Your task to perform on an android device: change the clock display to show seconds Image 0: 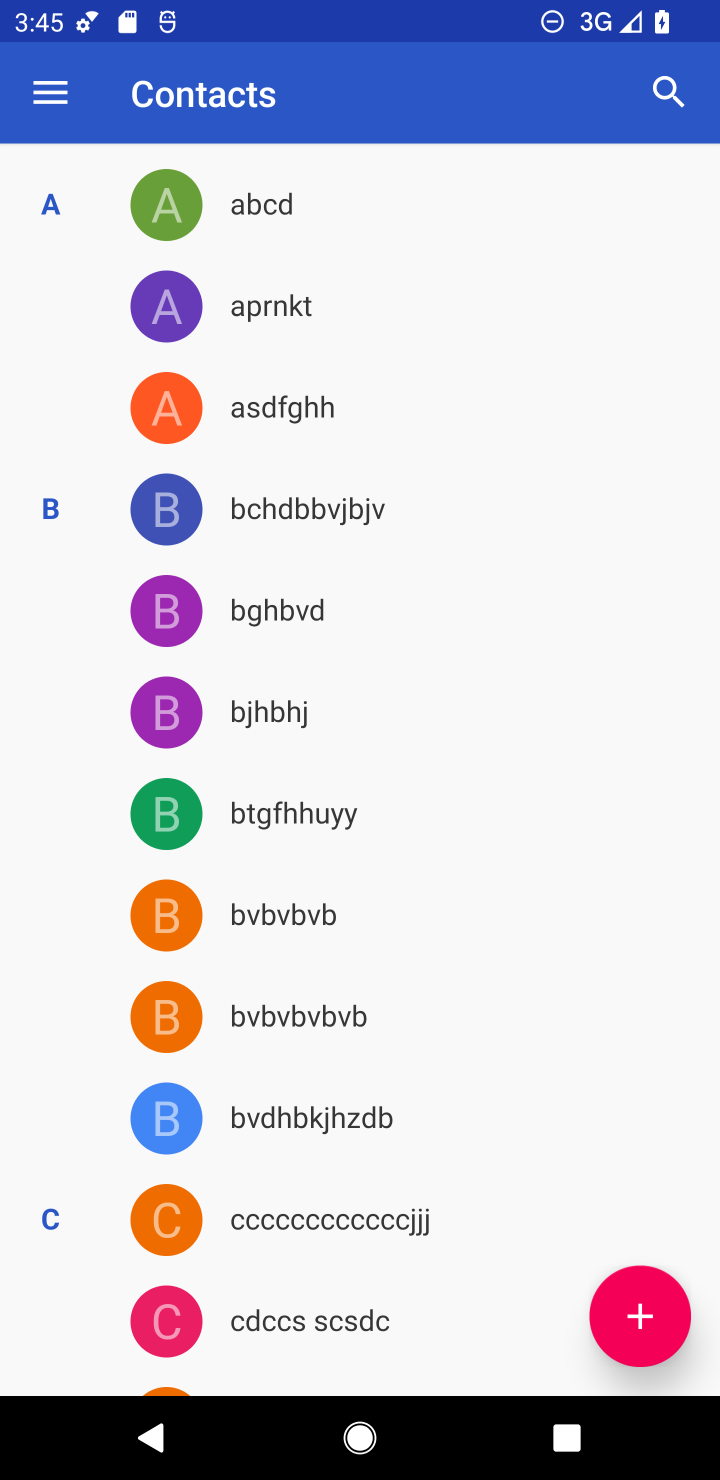
Step 0: press home button
Your task to perform on an android device: change the clock display to show seconds Image 1: 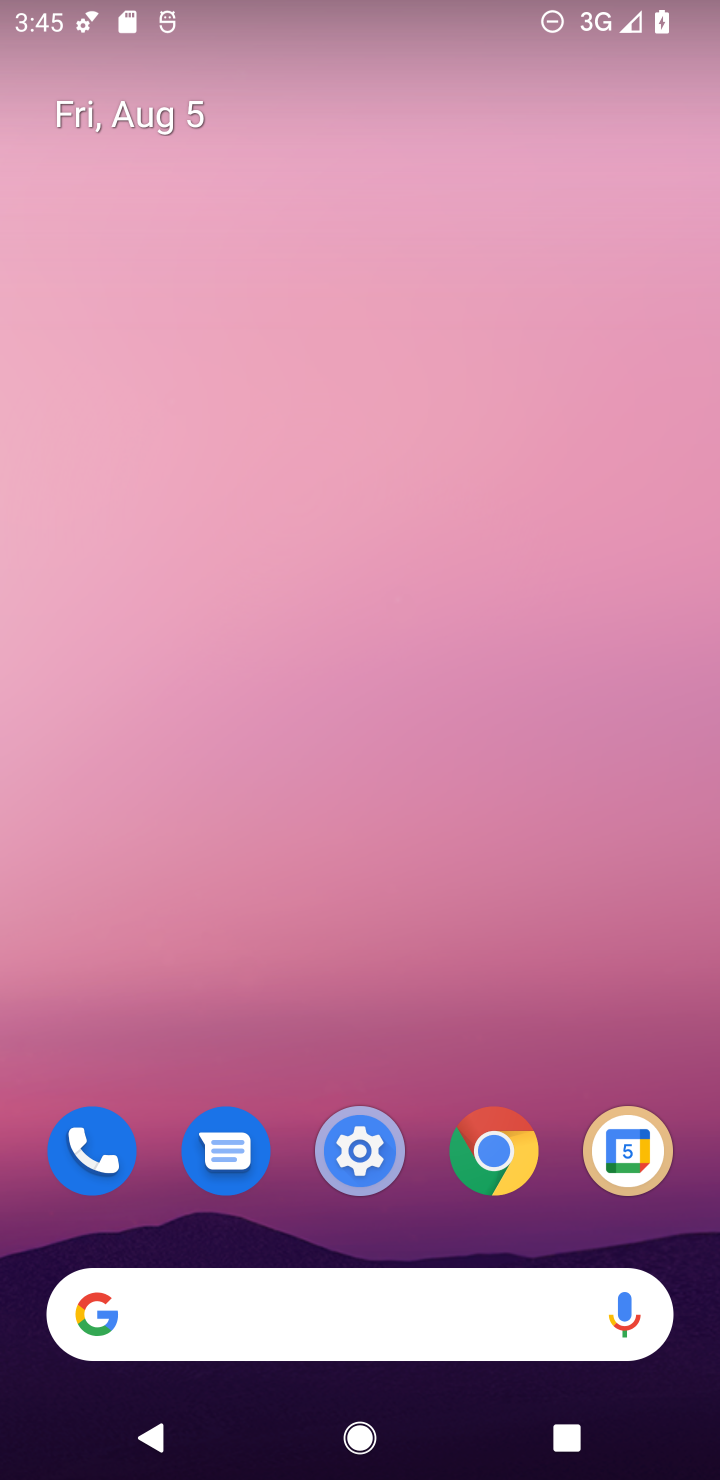
Step 1: drag from (243, 939) to (138, 50)
Your task to perform on an android device: change the clock display to show seconds Image 2: 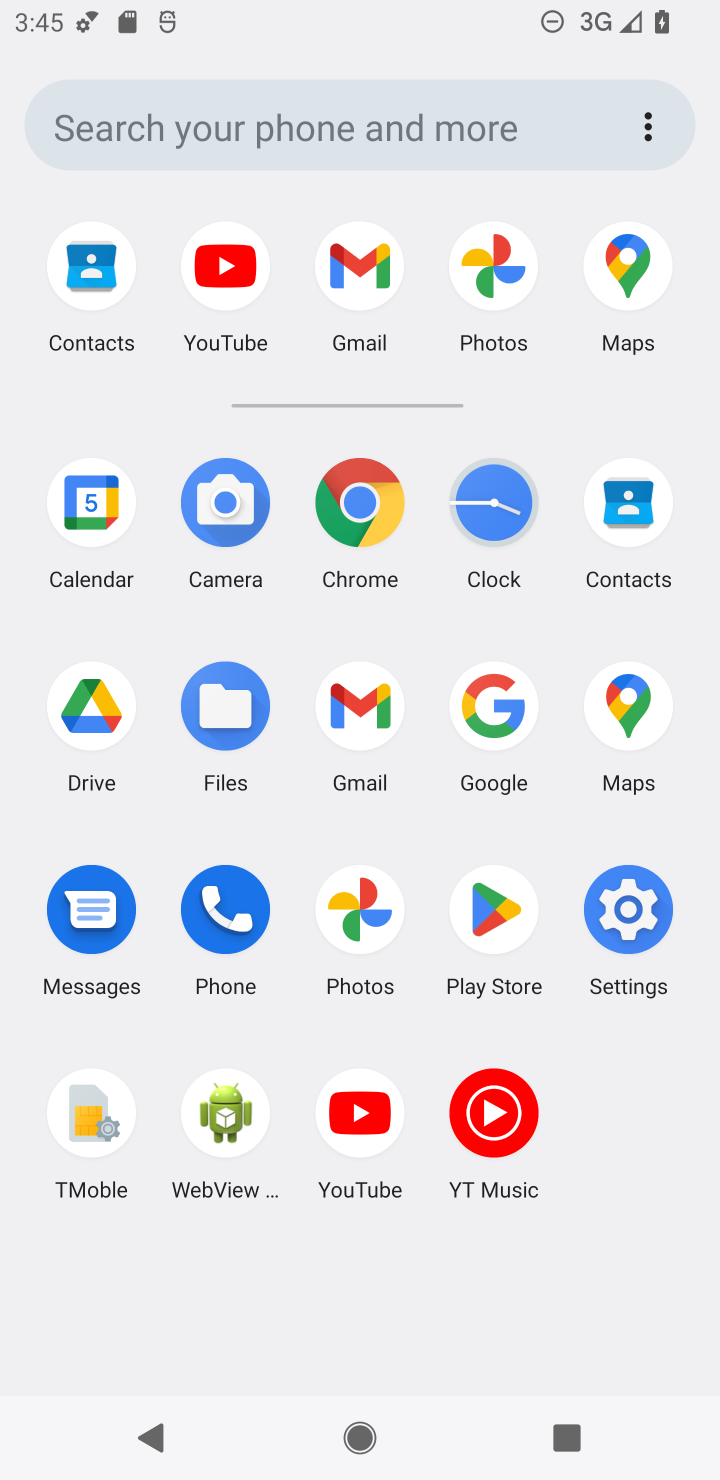
Step 2: click (508, 517)
Your task to perform on an android device: change the clock display to show seconds Image 3: 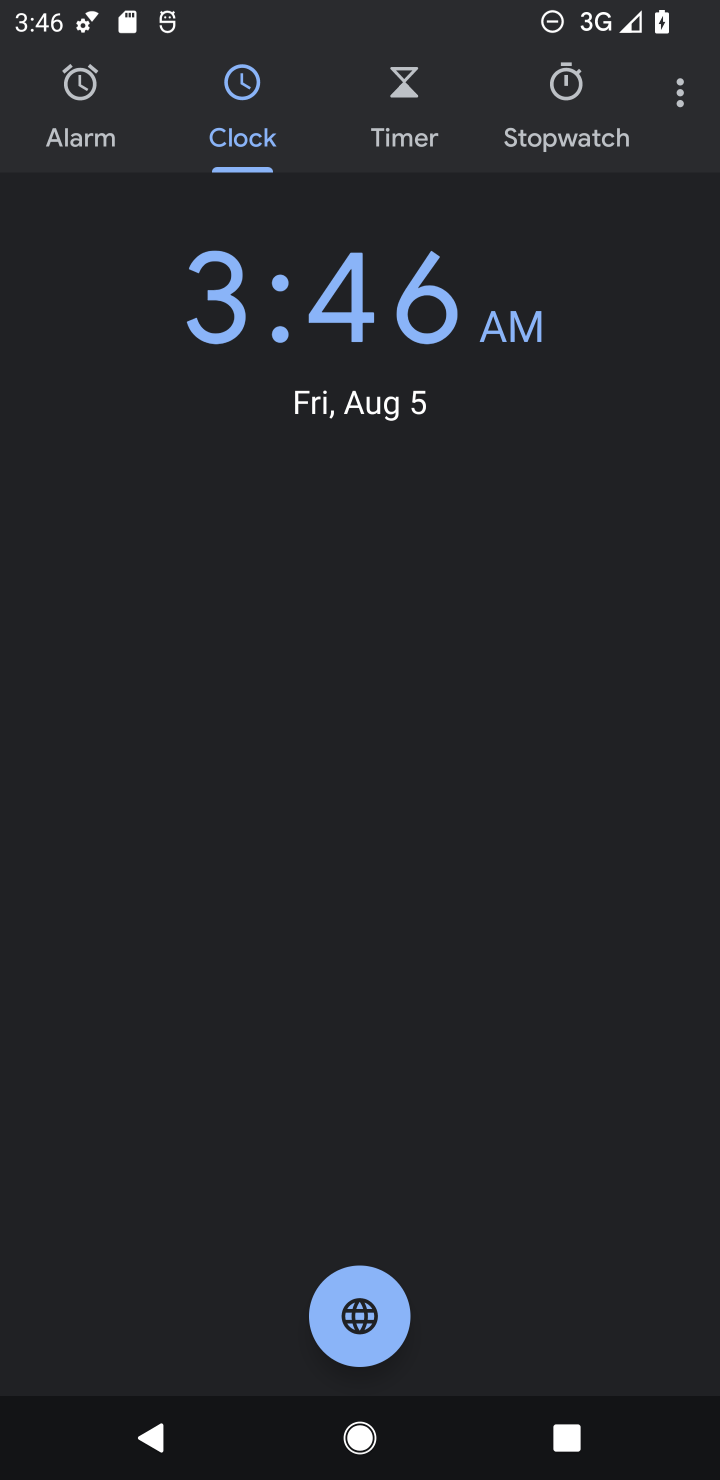
Step 3: click (674, 98)
Your task to perform on an android device: change the clock display to show seconds Image 4: 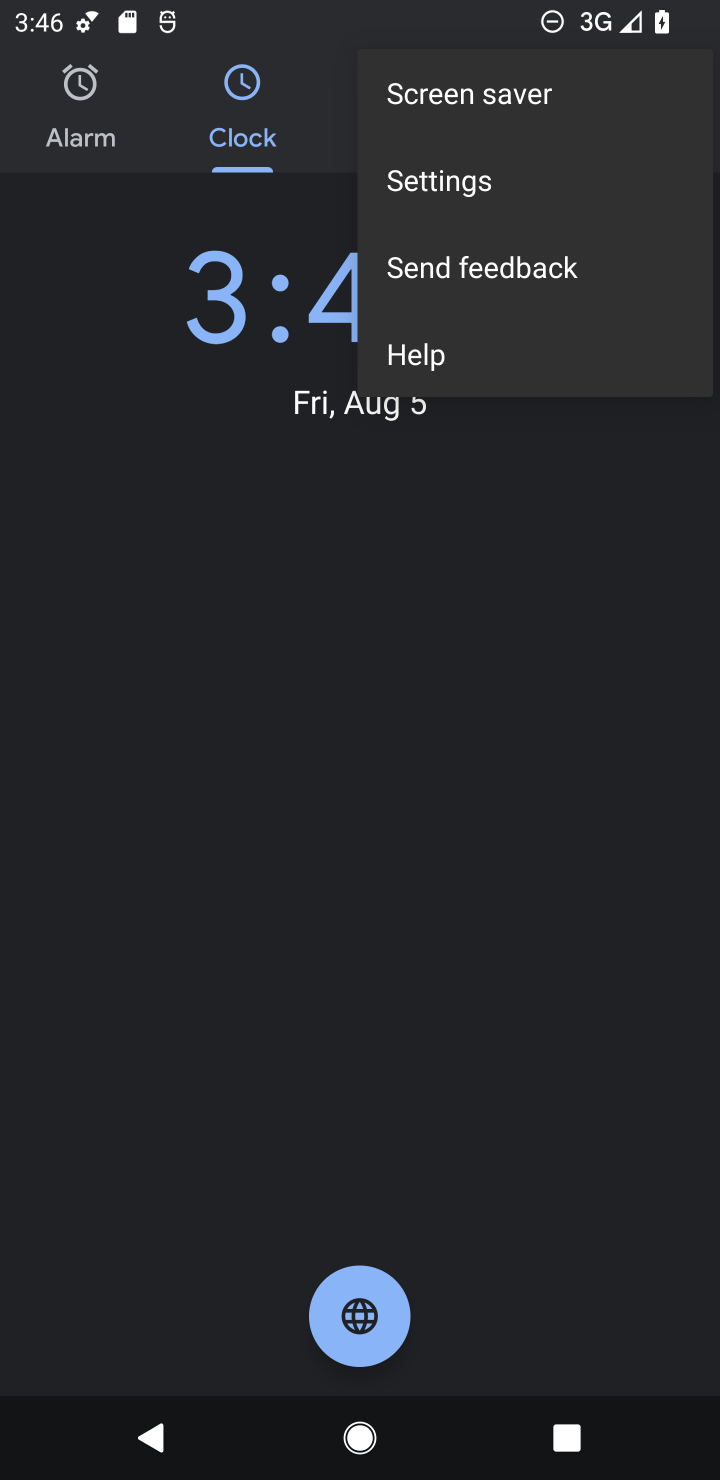
Step 4: click (485, 164)
Your task to perform on an android device: change the clock display to show seconds Image 5: 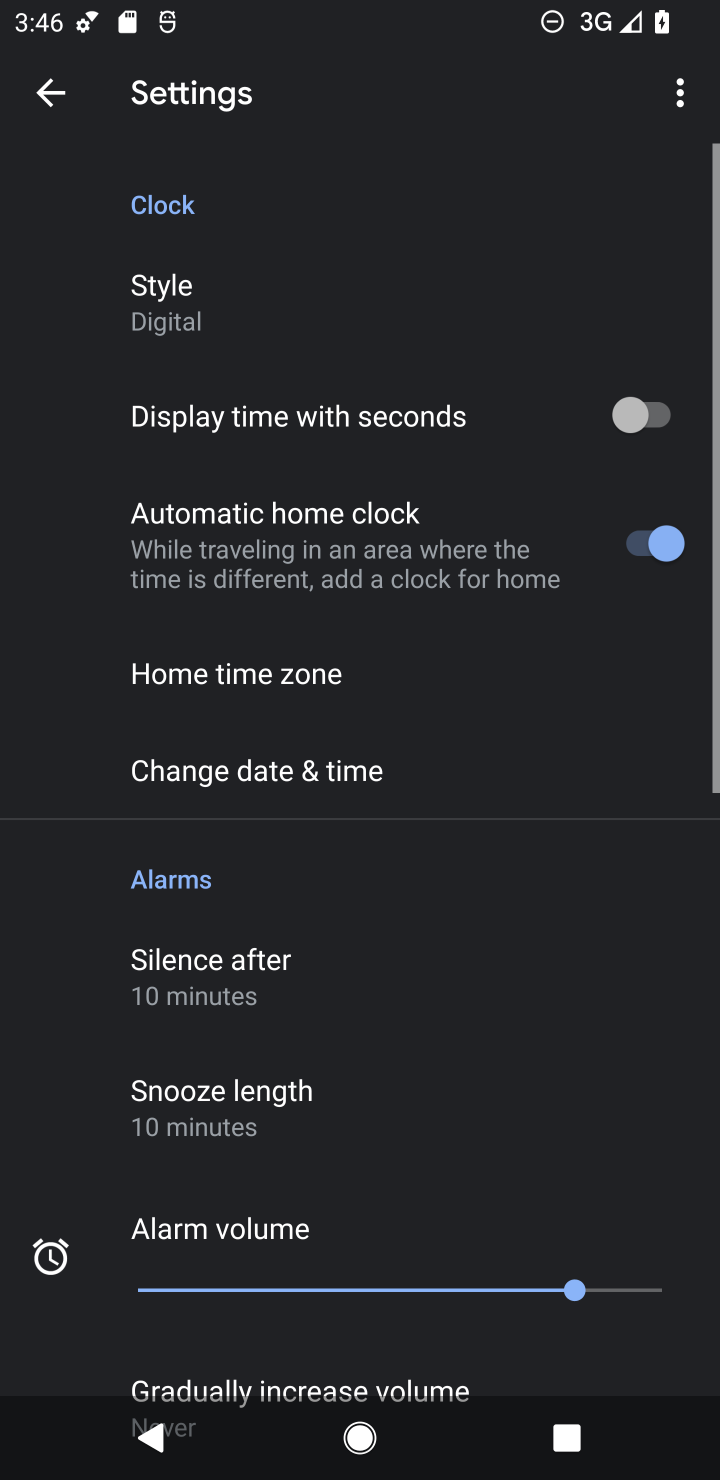
Step 5: click (466, 184)
Your task to perform on an android device: change the clock display to show seconds Image 6: 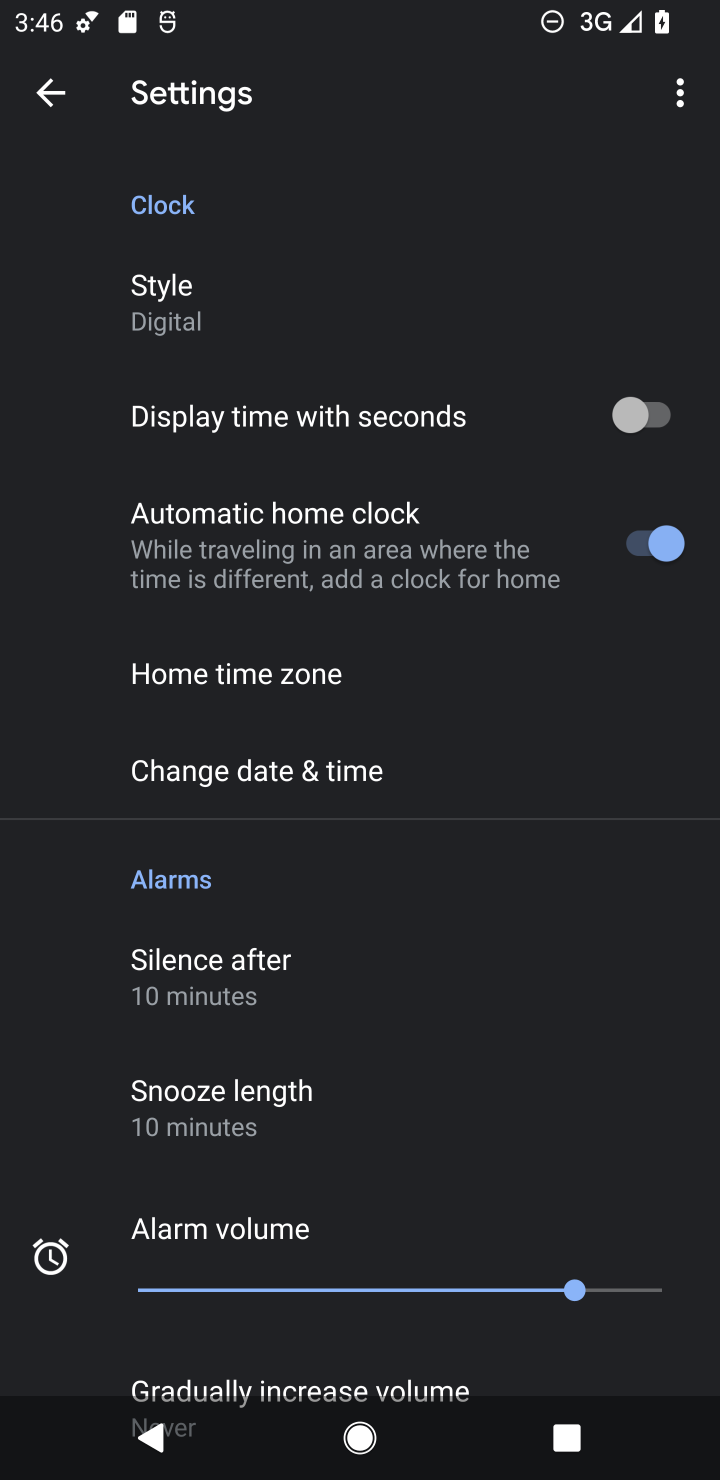
Step 6: click (628, 417)
Your task to perform on an android device: change the clock display to show seconds Image 7: 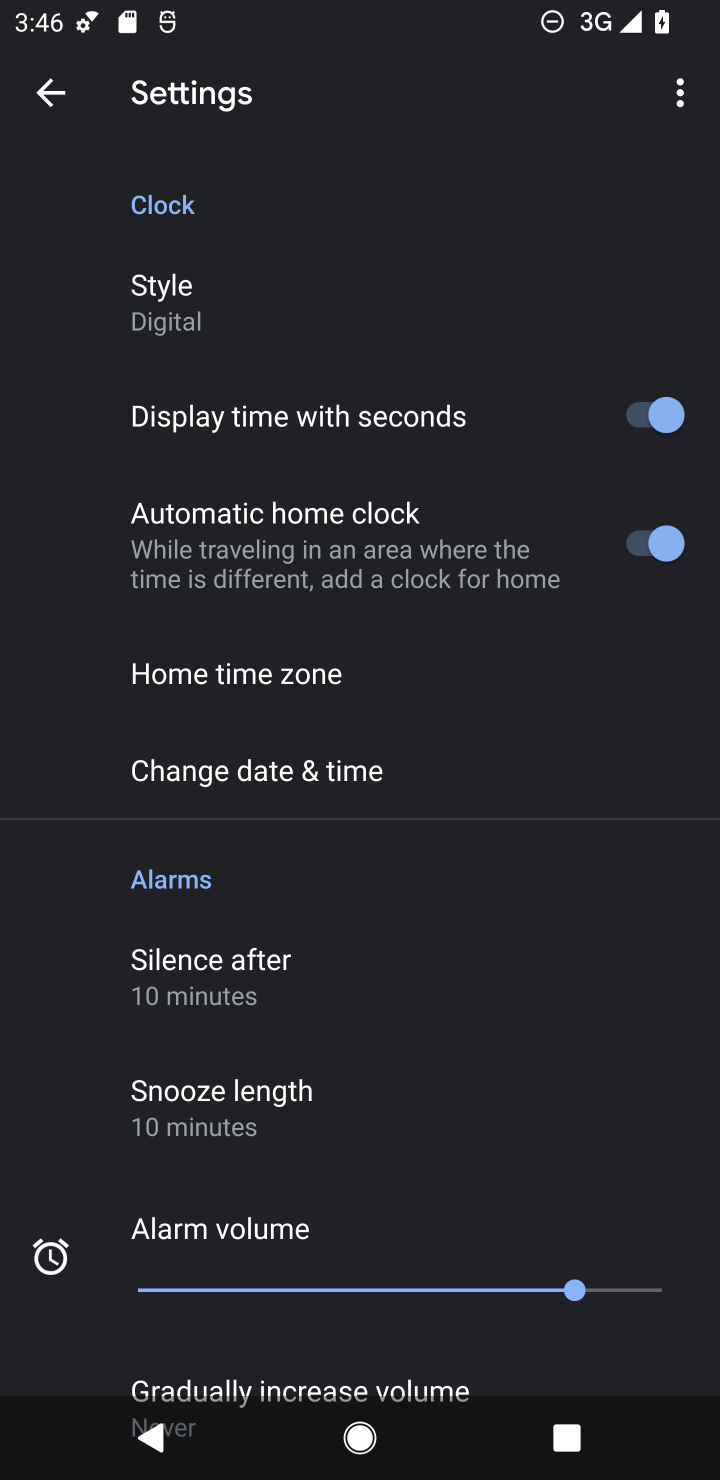
Step 7: task complete